Your task to perform on an android device: turn on the 12-hour format for clock Image 0: 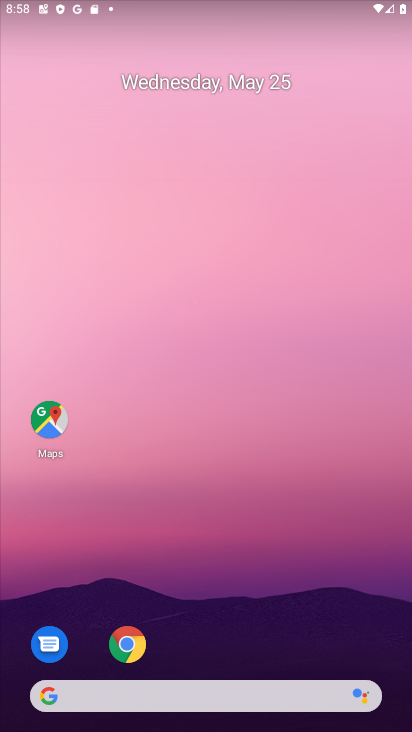
Step 0: press home button
Your task to perform on an android device: turn on the 12-hour format for clock Image 1: 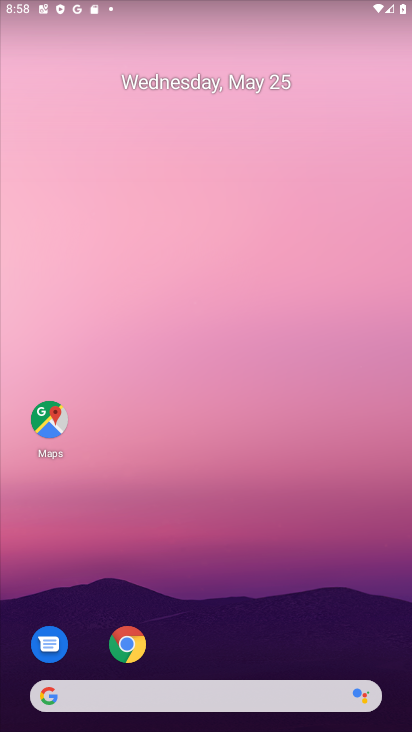
Step 1: drag from (210, 661) to (273, 20)
Your task to perform on an android device: turn on the 12-hour format for clock Image 2: 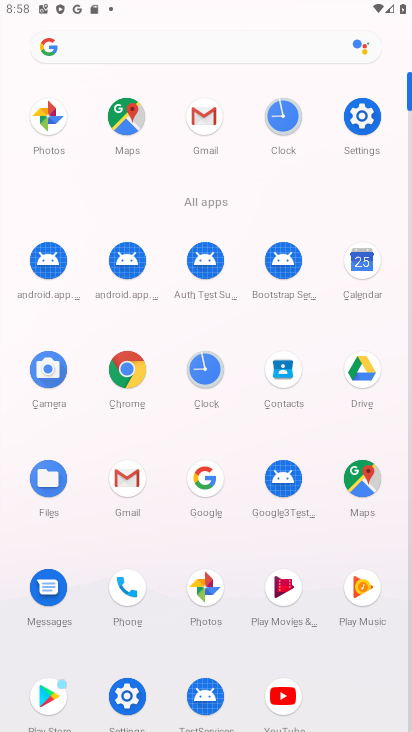
Step 2: click (279, 107)
Your task to perform on an android device: turn on the 12-hour format for clock Image 3: 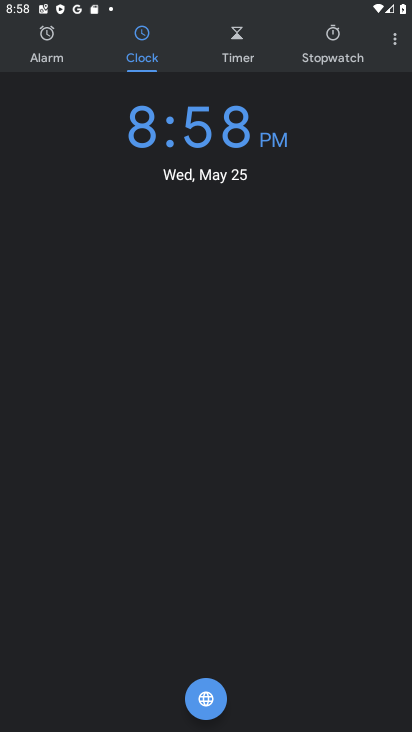
Step 3: click (393, 39)
Your task to perform on an android device: turn on the 12-hour format for clock Image 4: 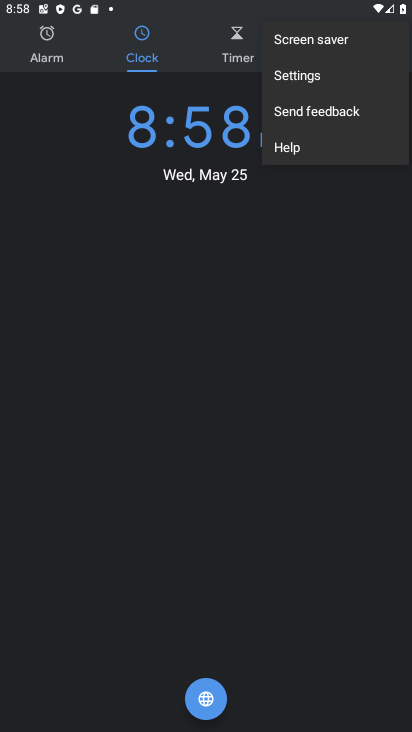
Step 4: click (326, 77)
Your task to perform on an android device: turn on the 12-hour format for clock Image 5: 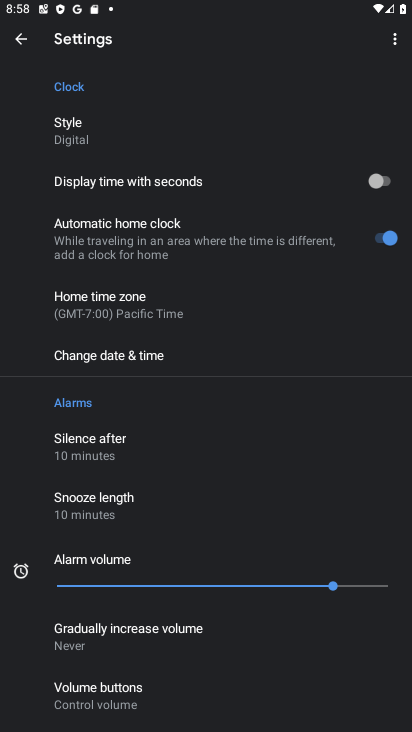
Step 5: click (194, 356)
Your task to perform on an android device: turn on the 12-hour format for clock Image 6: 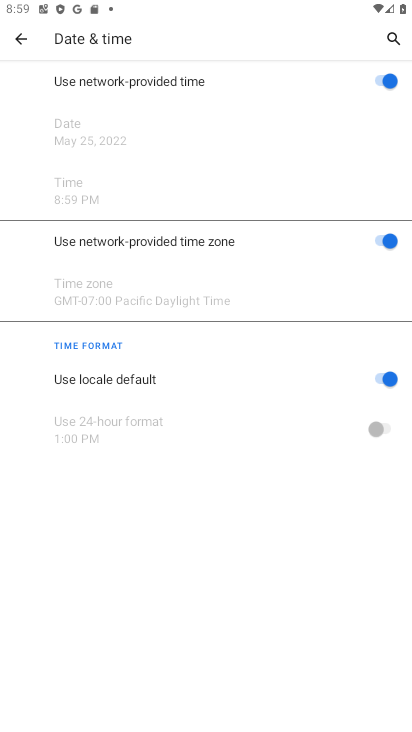
Step 6: task complete